Your task to perform on an android device: check storage Image 0: 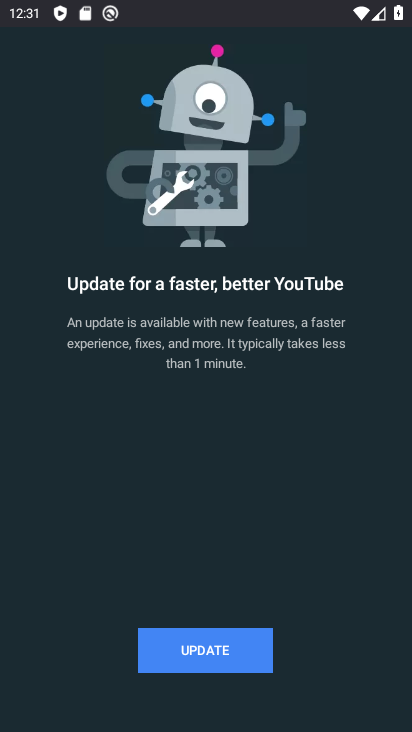
Step 0: press back button
Your task to perform on an android device: check storage Image 1: 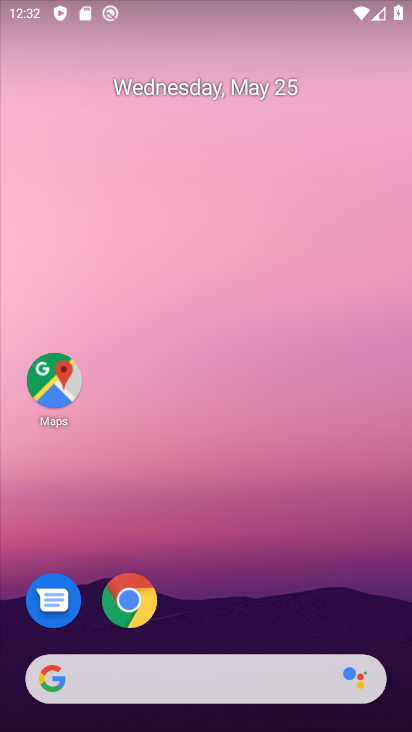
Step 1: drag from (305, 633) to (255, 216)
Your task to perform on an android device: check storage Image 2: 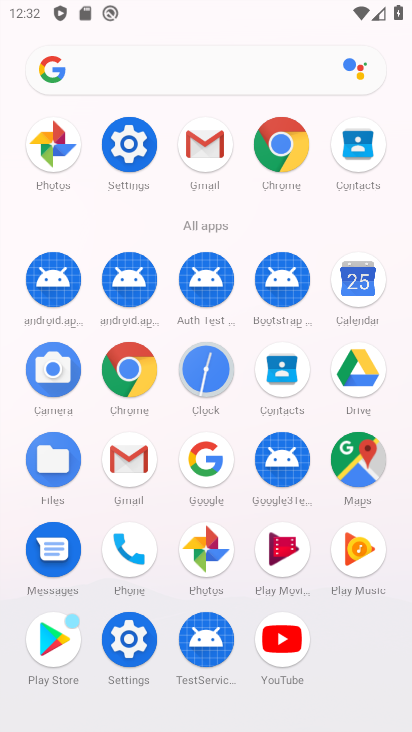
Step 2: click (138, 148)
Your task to perform on an android device: check storage Image 3: 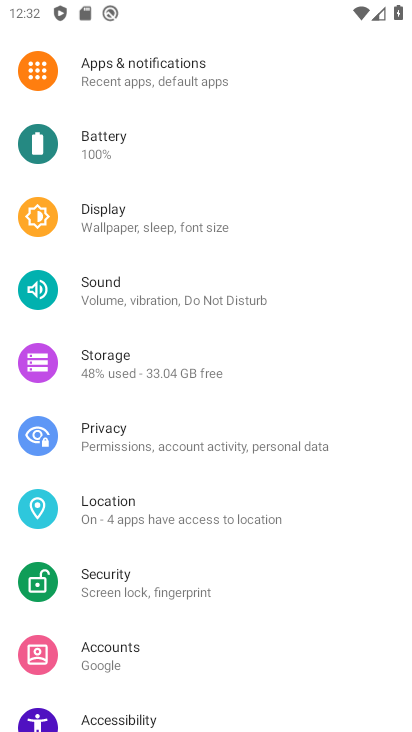
Step 3: click (112, 353)
Your task to perform on an android device: check storage Image 4: 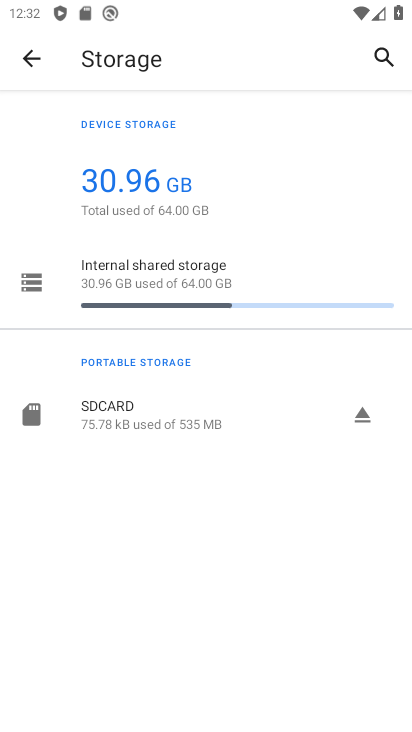
Step 4: task complete